Your task to perform on an android device: Clear the shopping cart on ebay. Search for razer nari on ebay, select the first entry, and add it to the cart. Image 0: 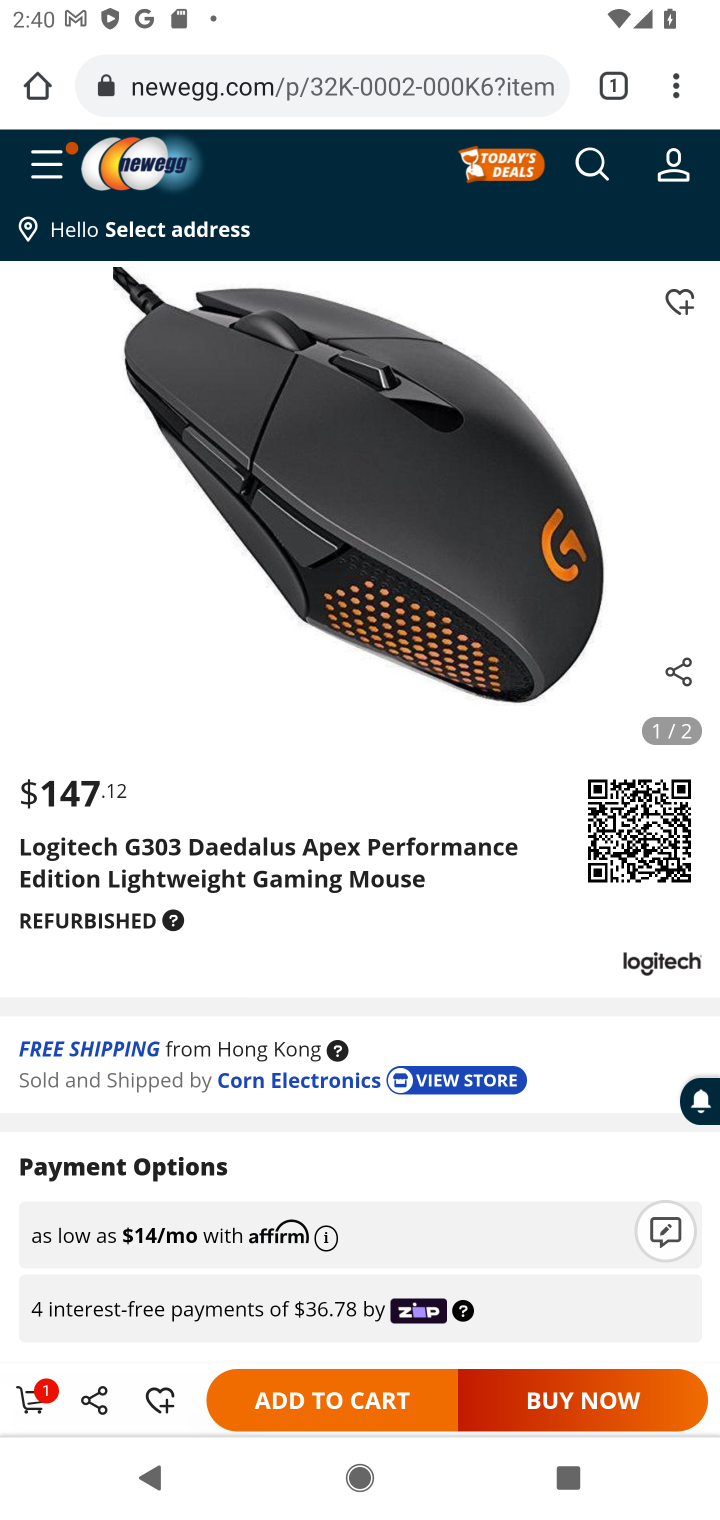
Step 0: click (401, 89)
Your task to perform on an android device: Clear the shopping cart on ebay. Search for razer nari on ebay, select the first entry, and add it to the cart. Image 1: 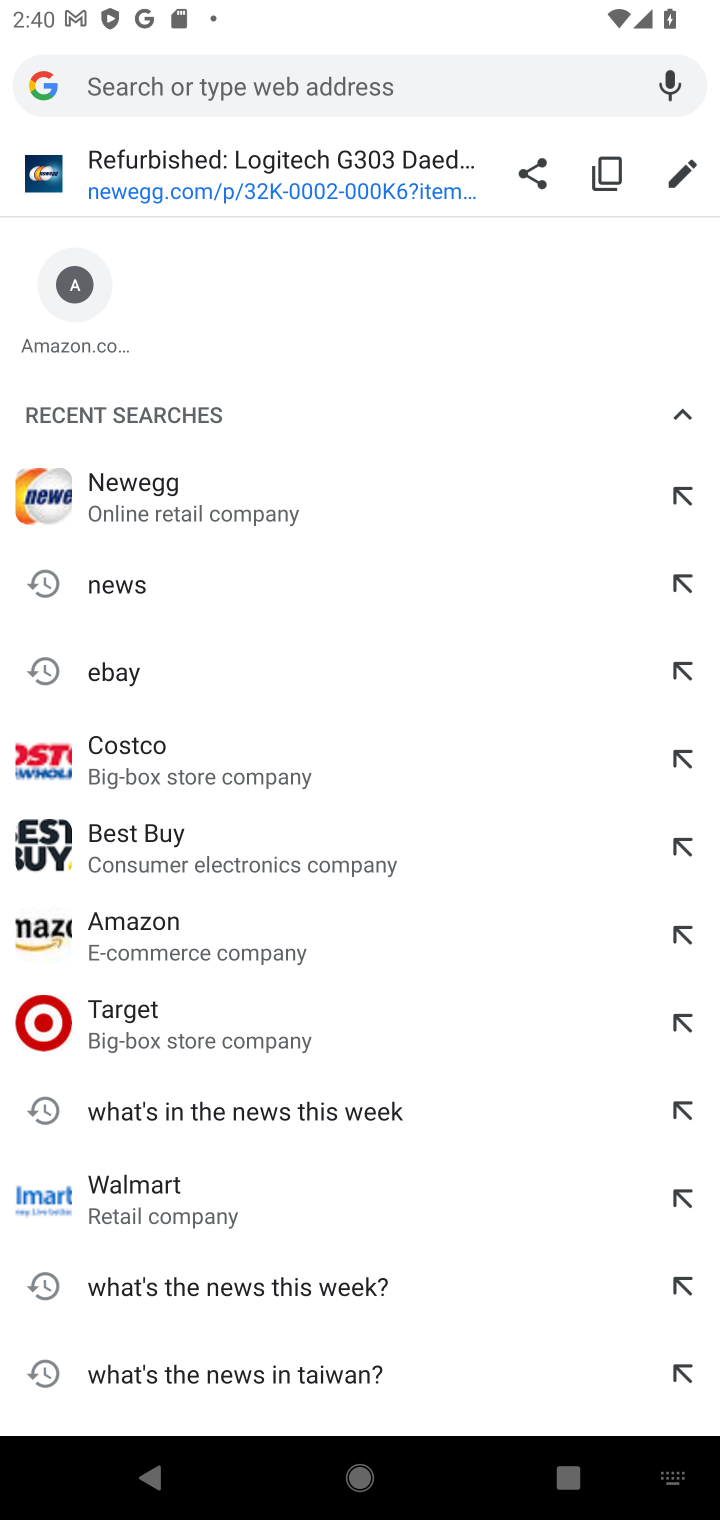
Step 1: type "ebay"
Your task to perform on an android device: Clear the shopping cart on ebay. Search for razer nari on ebay, select the first entry, and add it to the cart. Image 2: 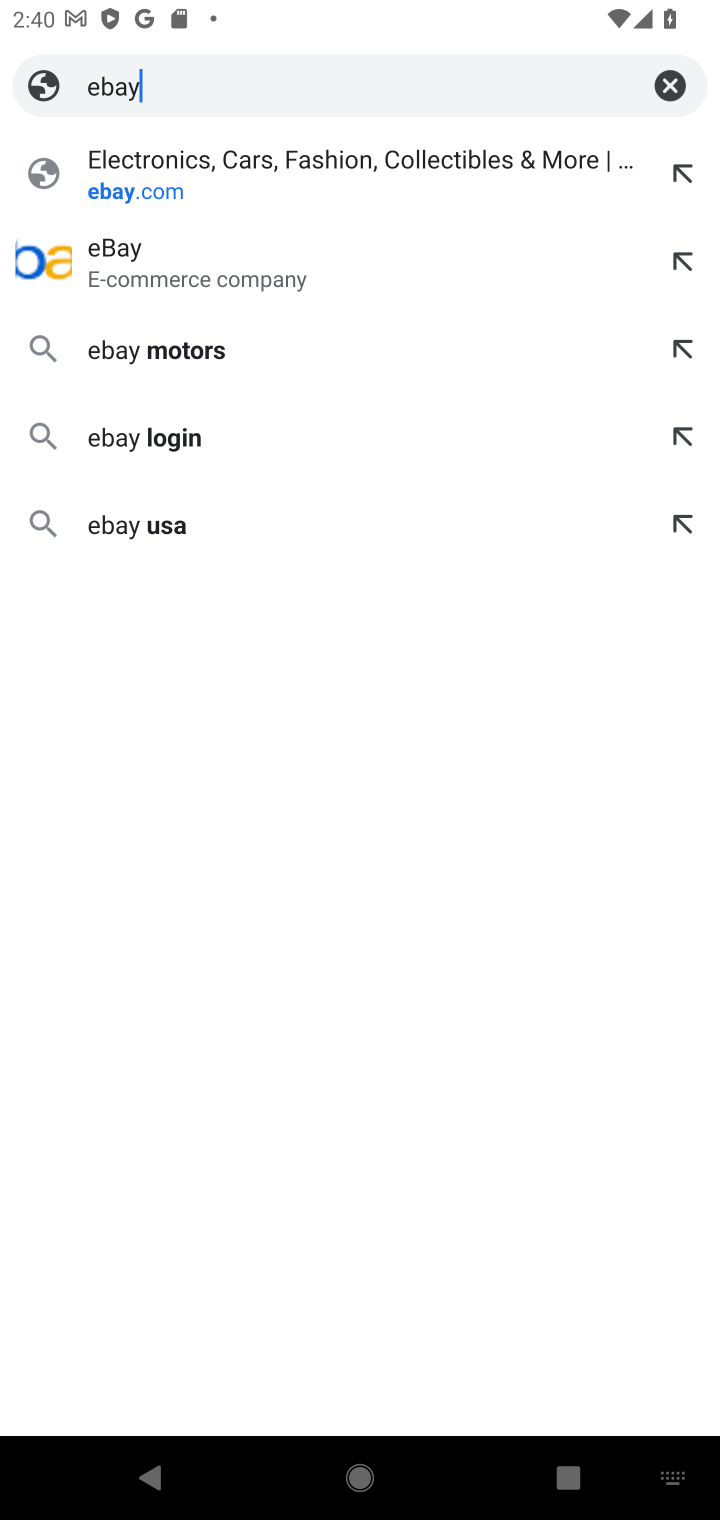
Step 2: click (269, 184)
Your task to perform on an android device: Clear the shopping cart on ebay. Search for razer nari on ebay, select the first entry, and add it to the cart. Image 3: 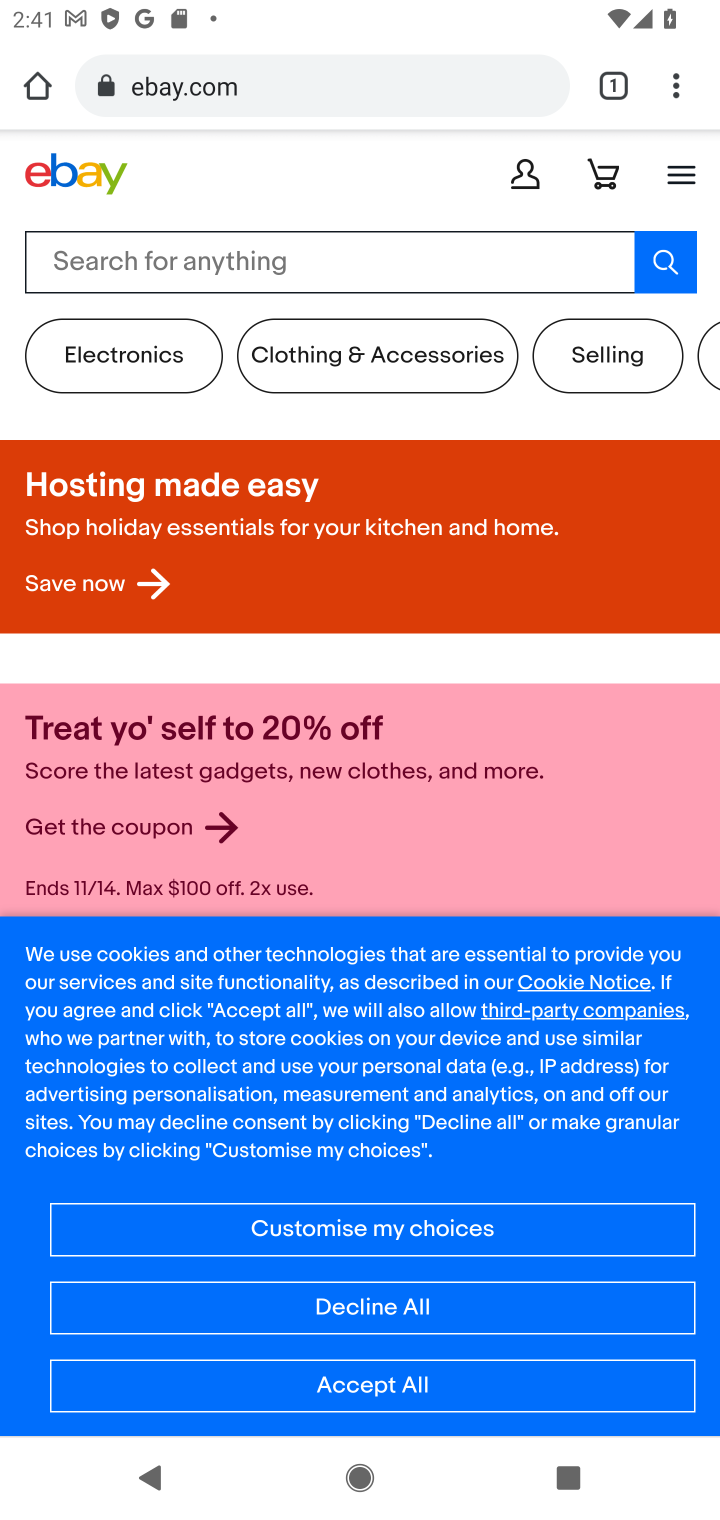
Step 3: click (596, 170)
Your task to perform on an android device: Clear the shopping cart on ebay. Search for razer nari on ebay, select the first entry, and add it to the cart. Image 4: 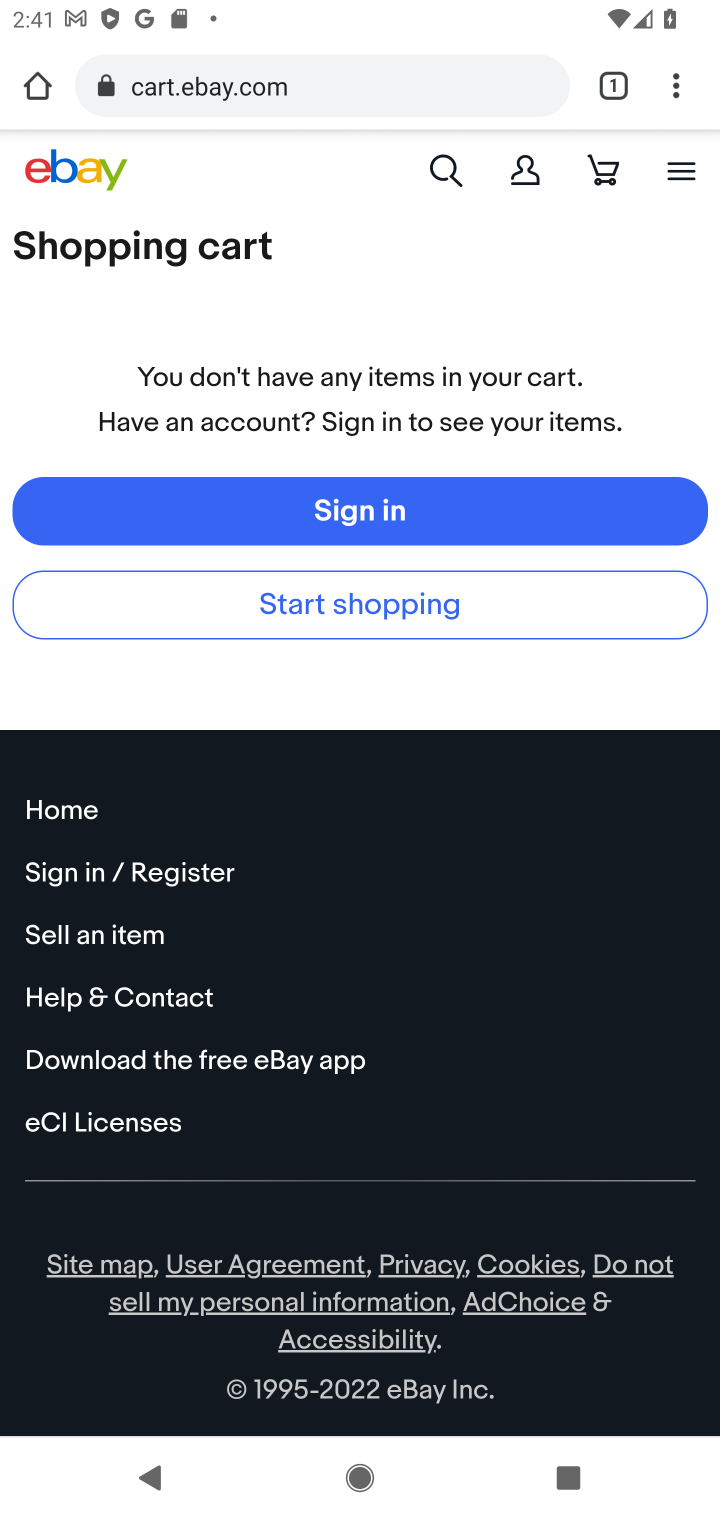
Step 4: click (450, 170)
Your task to perform on an android device: Clear the shopping cart on ebay. Search for razer nari on ebay, select the first entry, and add it to the cart. Image 5: 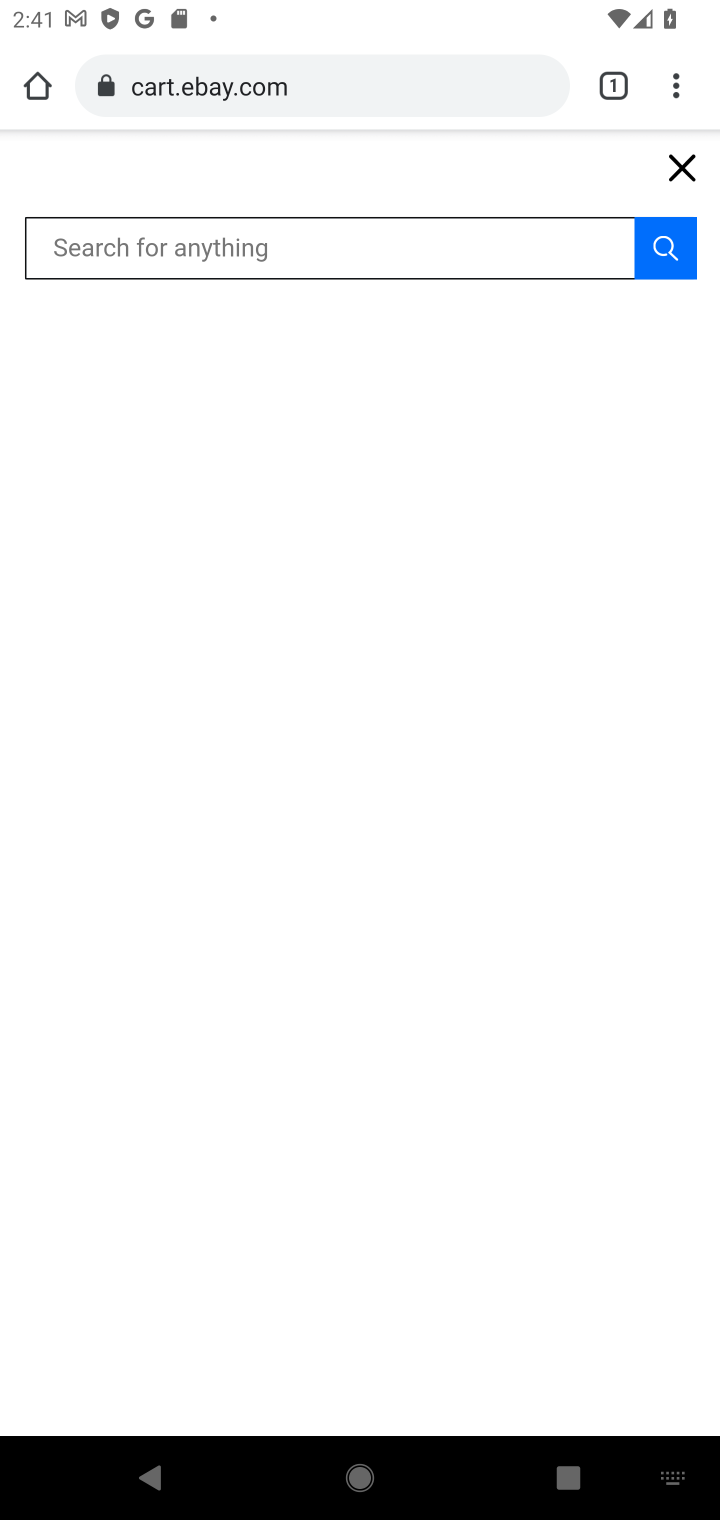
Step 5: type "razer nari"
Your task to perform on an android device: Clear the shopping cart on ebay. Search for razer nari on ebay, select the first entry, and add it to the cart. Image 6: 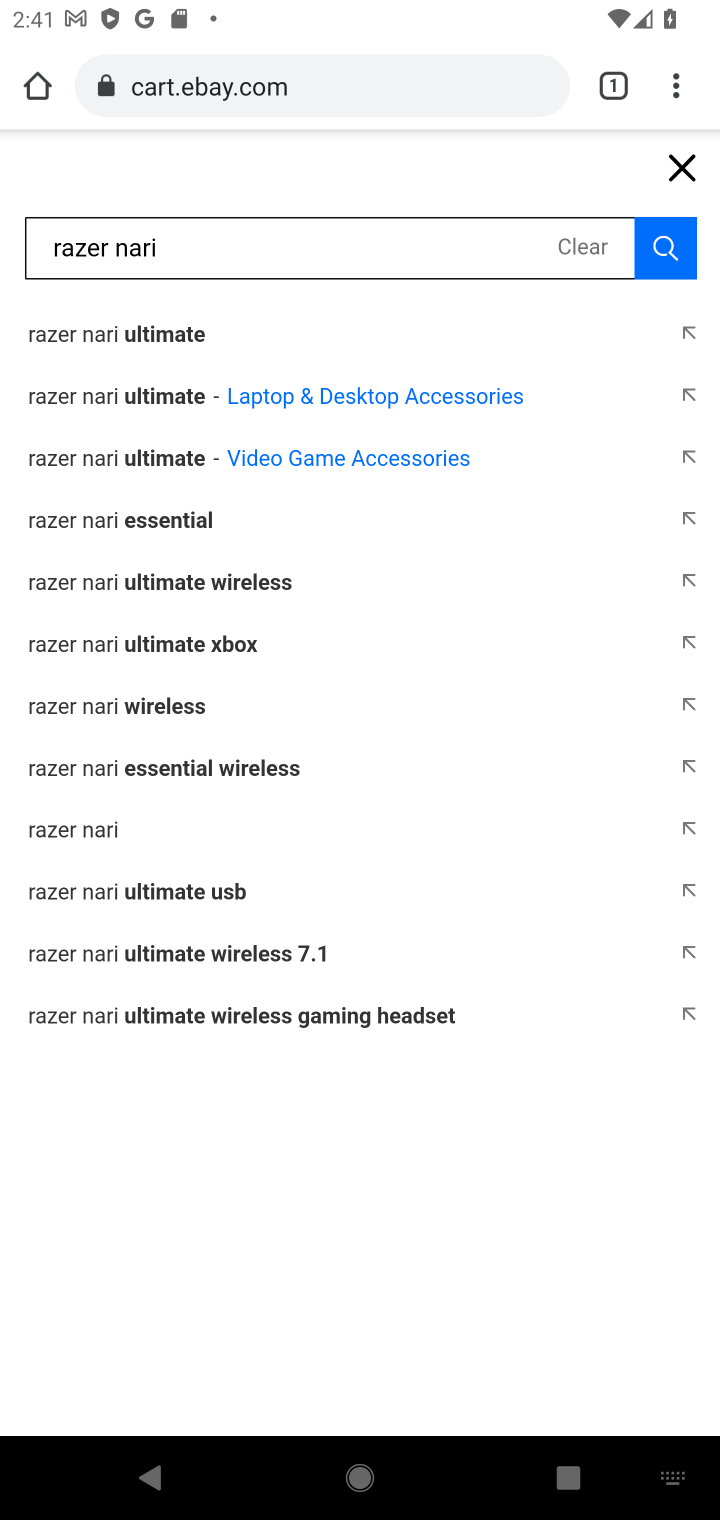
Step 6: press enter
Your task to perform on an android device: Clear the shopping cart on ebay. Search for razer nari on ebay, select the first entry, and add it to the cart. Image 7: 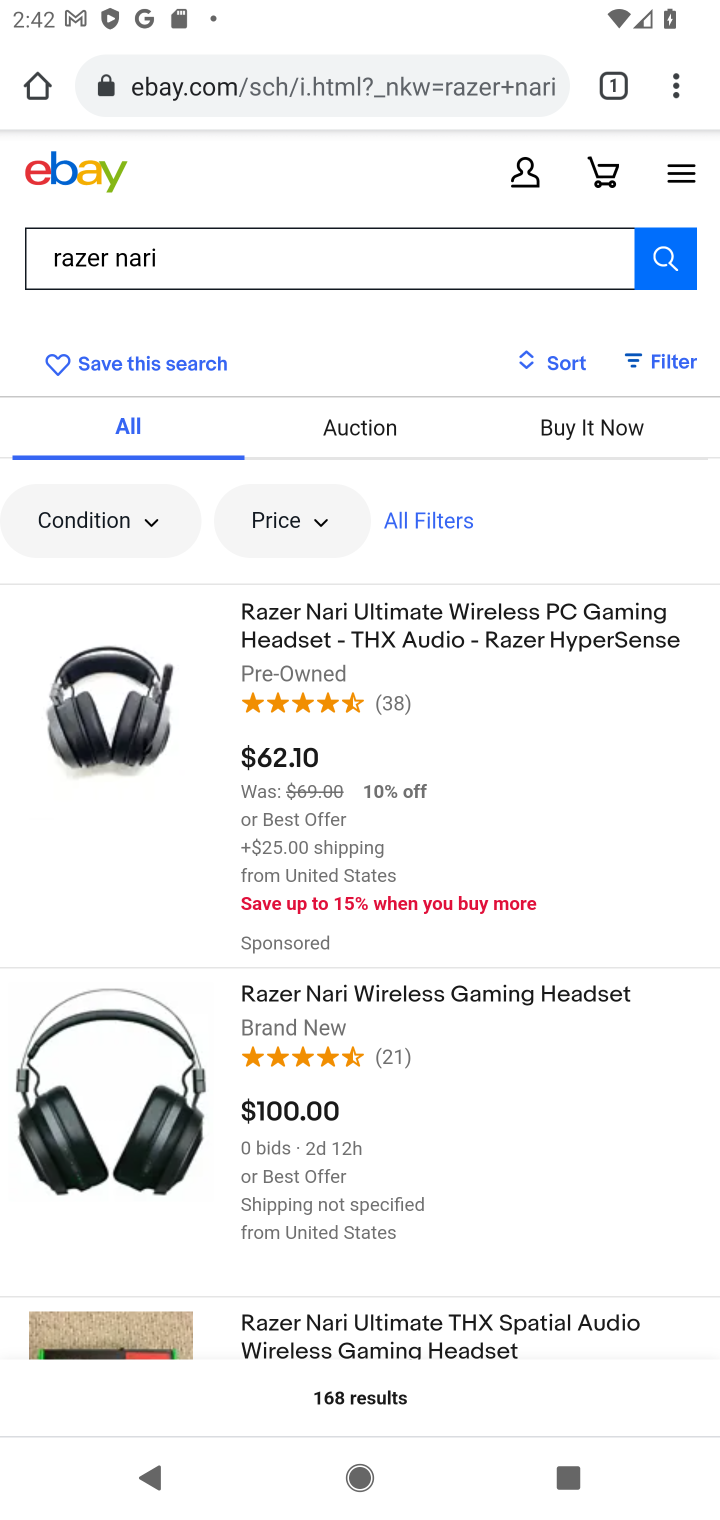
Step 7: click (132, 727)
Your task to perform on an android device: Clear the shopping cart on ebay. Search for razer nari on ebay, select the first entry, and add it to the cart. Image 8: 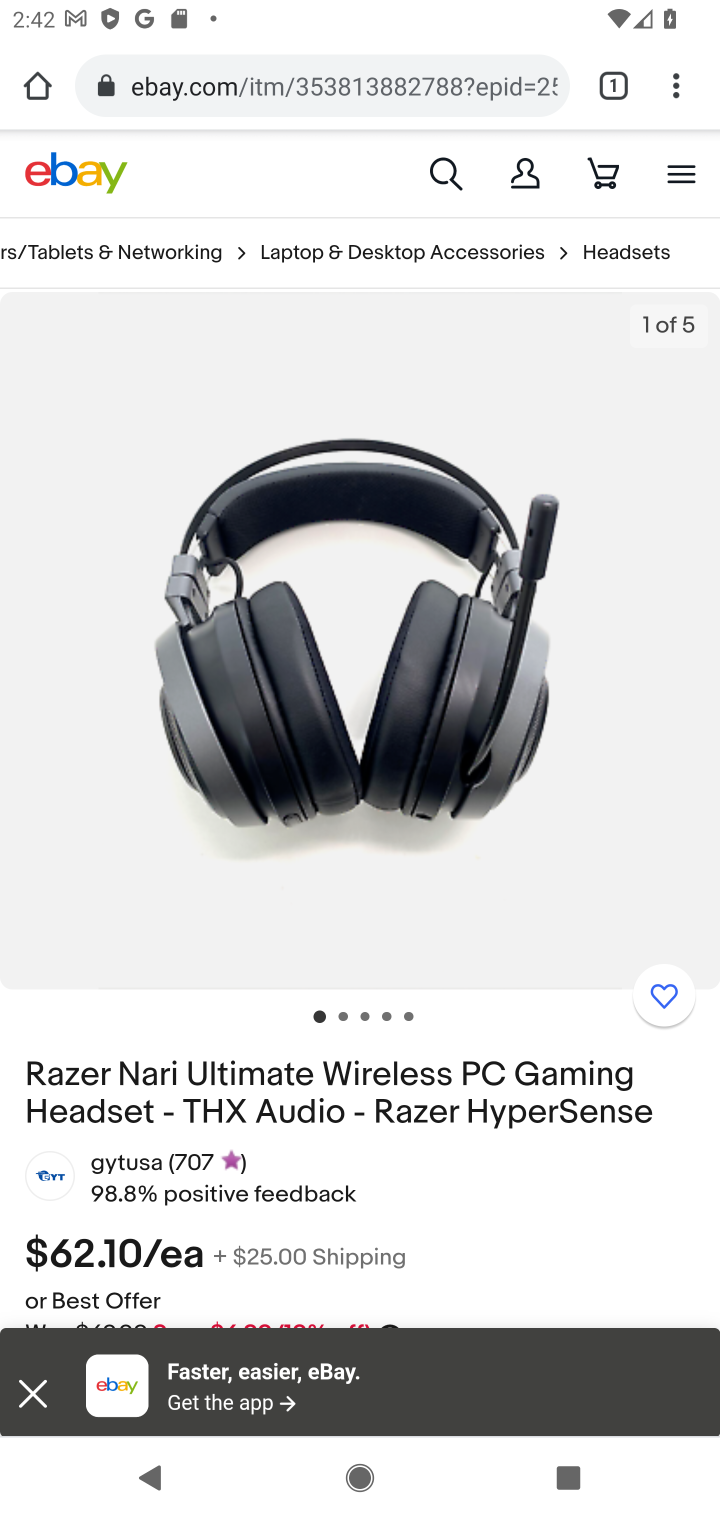
Step 8: drag from (445, 1212) to (391, 331)
Your task to perform on an android device: Clear the shopping cart on ebay. Search for razer nari on ebay, select the first entry, and add it to the cart. Image 9: 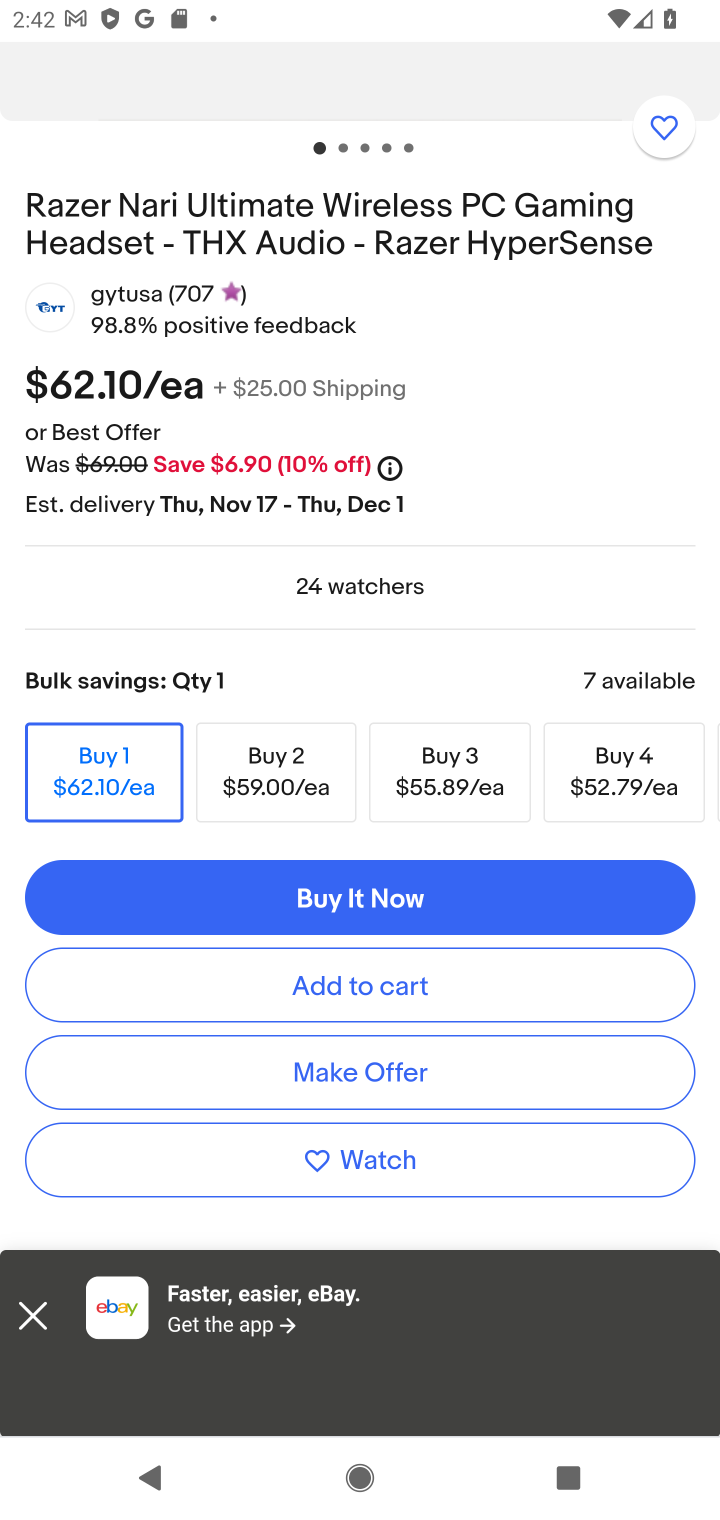
Step 9: click (442, 995)
Your task to perform on an android device: Clear the shopping cart on ebay. Search for razer nari on ebay, select the first entry, and add it to the cart. Image 10: 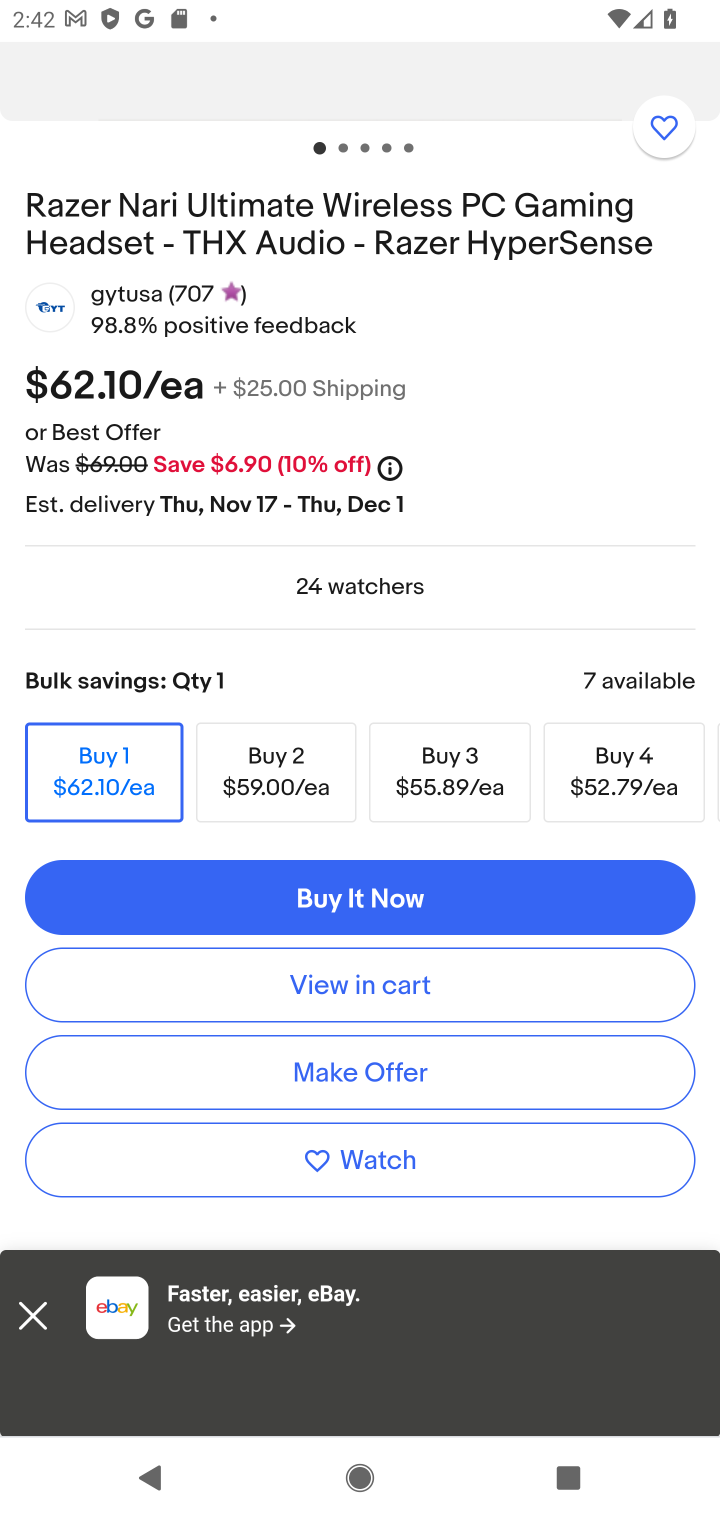
Step 10: task complete